Your task to perform on an android device: Go to accessibility settings Image 0: 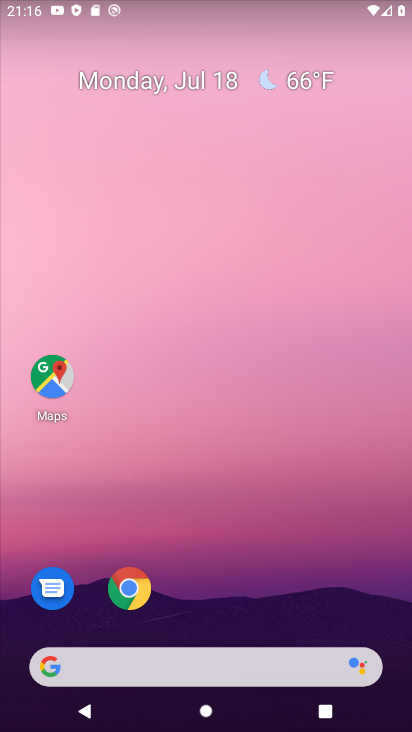
Step 0: drag from (190, 531) to (264, 115)
Your task to perform on an android device: Go to accessibility settings Image 1: 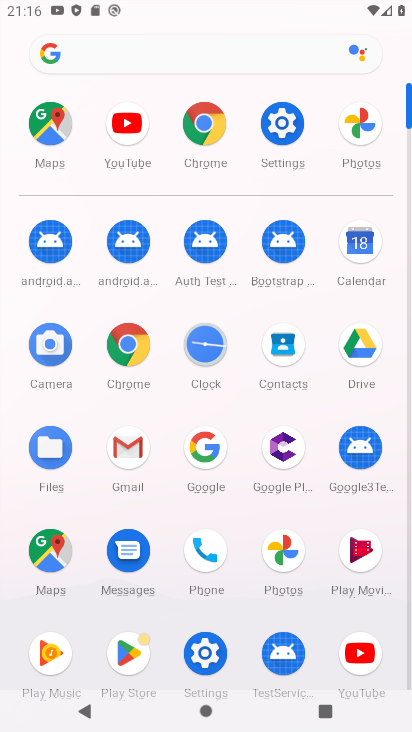
Step 1: click (199, 646)
Your task to perform on an android device: Go to accessibility settings Image 2: 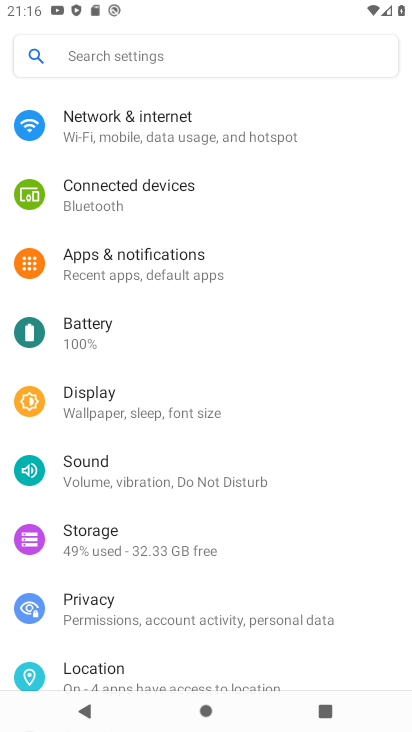
Step 2: drag from (199, 646) to (202, 230)
Your task to perform on an android device: Go to accessibility settings Image 3: 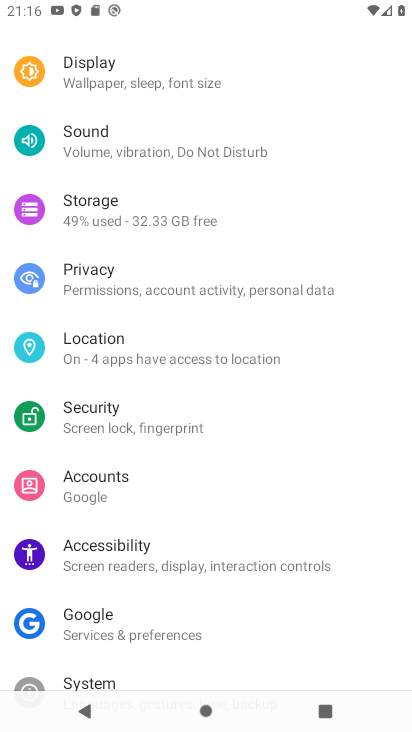
Step 3: drag from (185, 485) to (160, 171)
Your task to perform on an android device: Go to accessibility settings Image 4: 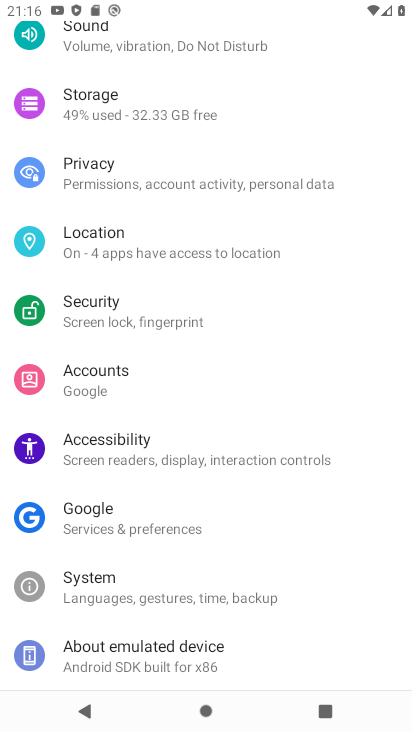
Step 4: drag from (169, 639) to (163, 541)
Your task to perform on an android device: Go to accessibility settings Image 5: 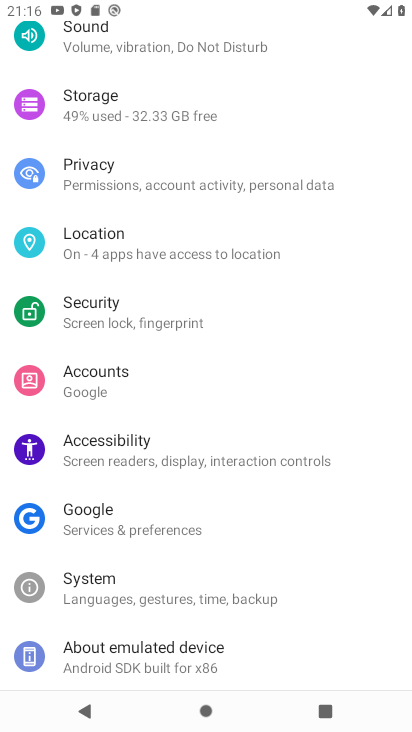
Step 5: click (131, 434)
Your task to perform on an android device: Go to accessibility settings Image 6: 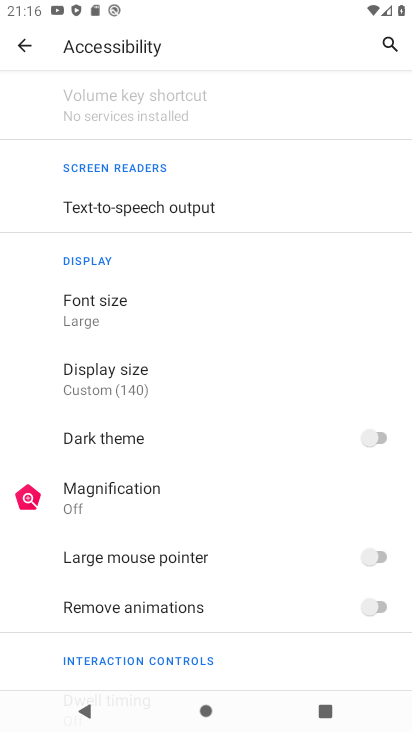
Step 6: task complete